Your task to perform on an android device: delete location history Image 0: 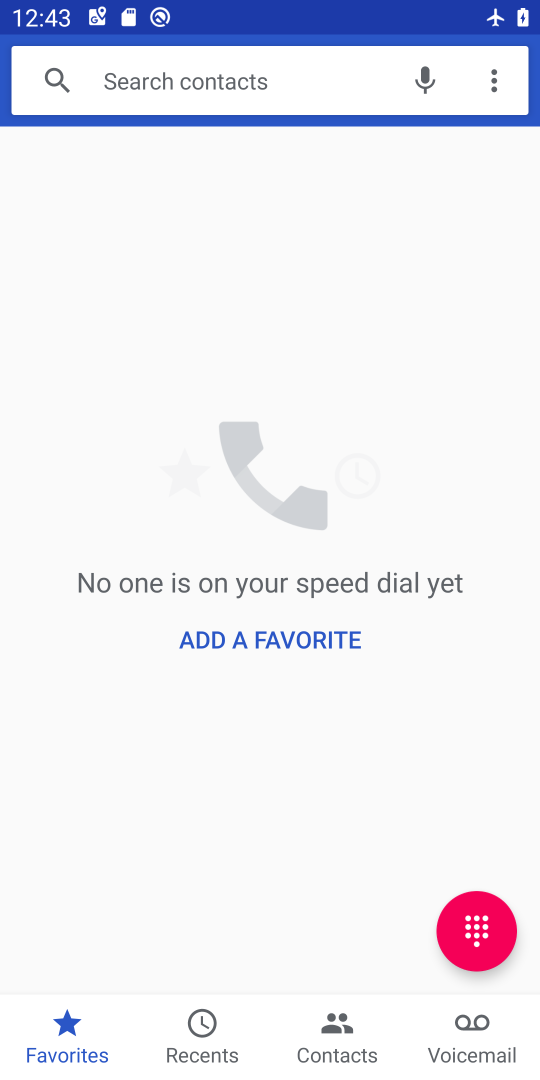
Step 0: press home button
Your task to perform on an android device: delete location history Image 1: 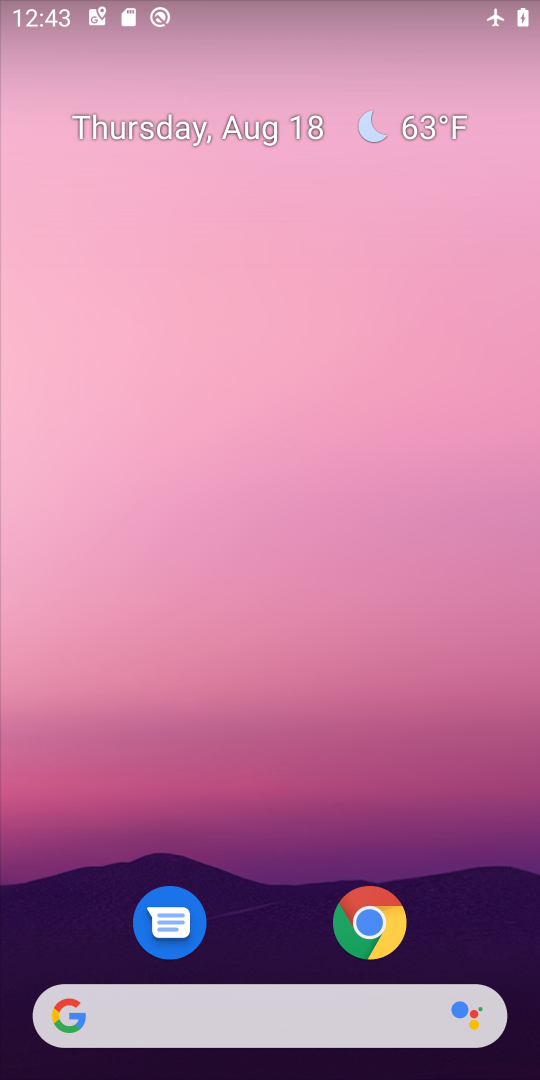
Step 1: drag from (258, 889) to (227, 309)
Your task to perform on an android device: delete location history Image 2: 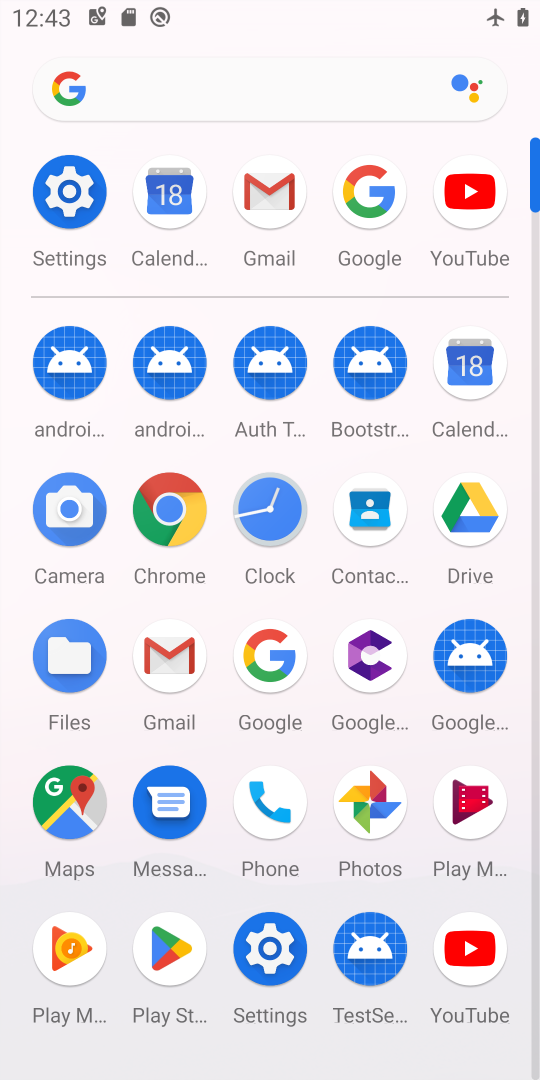
Step 2: click (70, 799)
Your task to perform on an android device: delete location history Image 3: 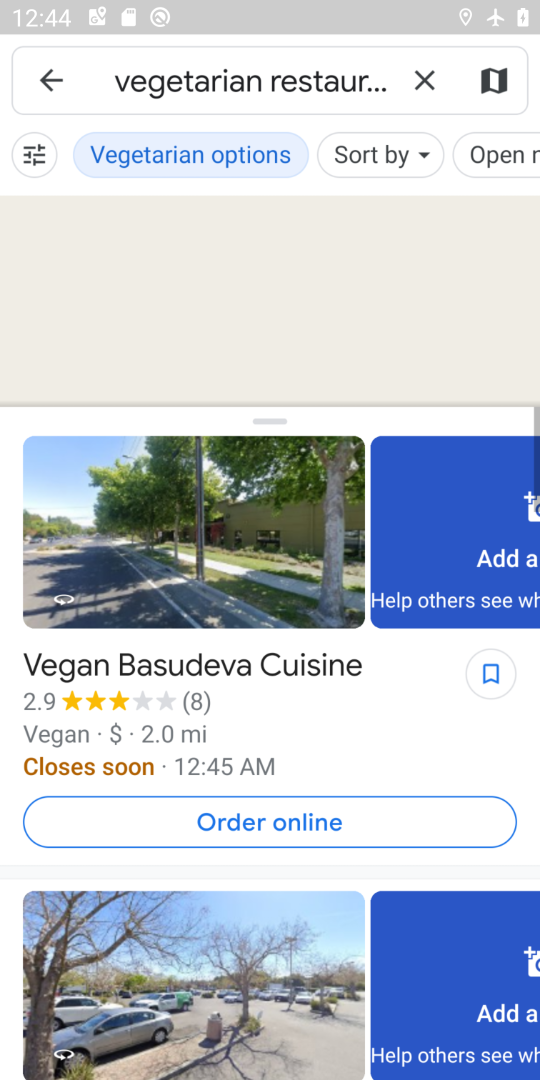
Step 3: click (47, 70)
Your task to perform on an android device: delete location history Image 4: 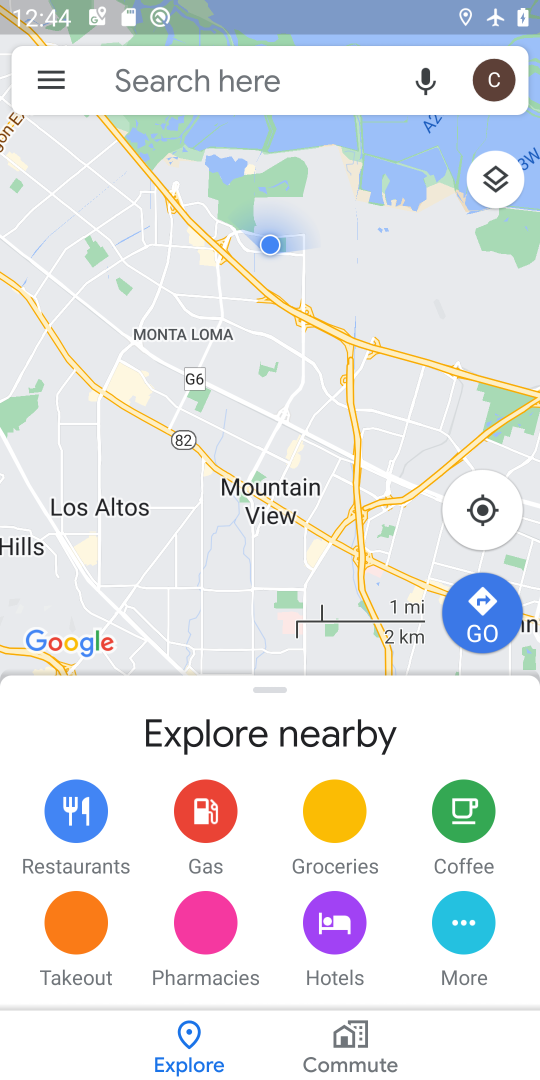
Step 4: click (51, 82)
Your task to perform on an android device: delete location history Image 5: 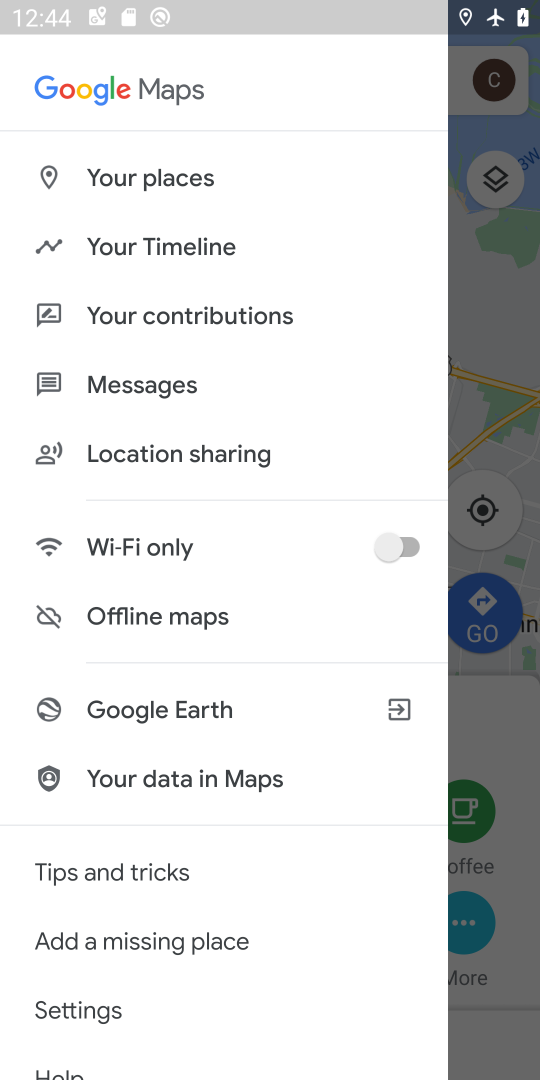
Step 5: click (160, 242)
Your task to perform on an android device: delete location history Image 6: 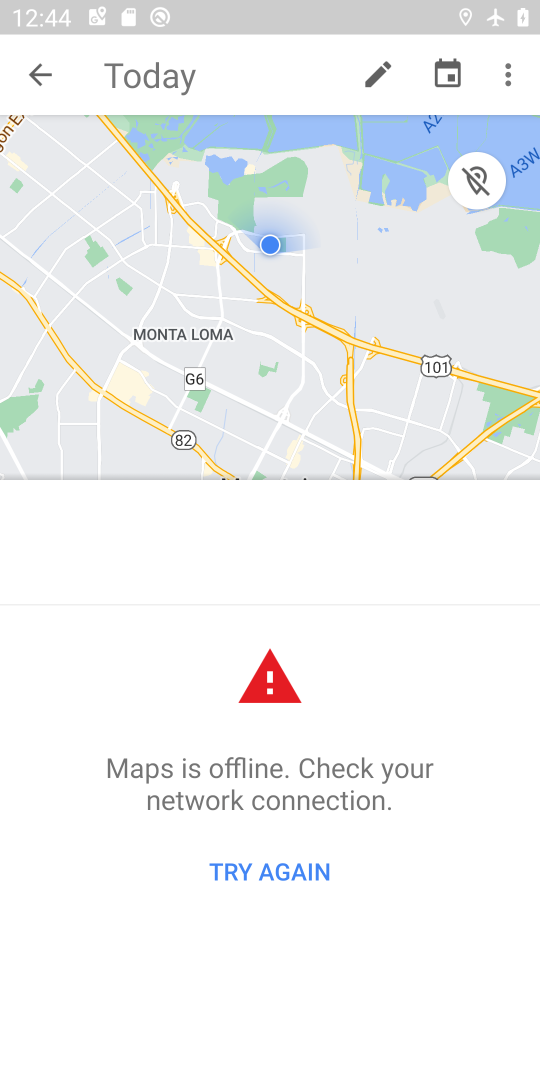
Step 6: click (511, 72)
Your task to perform on an android device: delete location history Image 7: 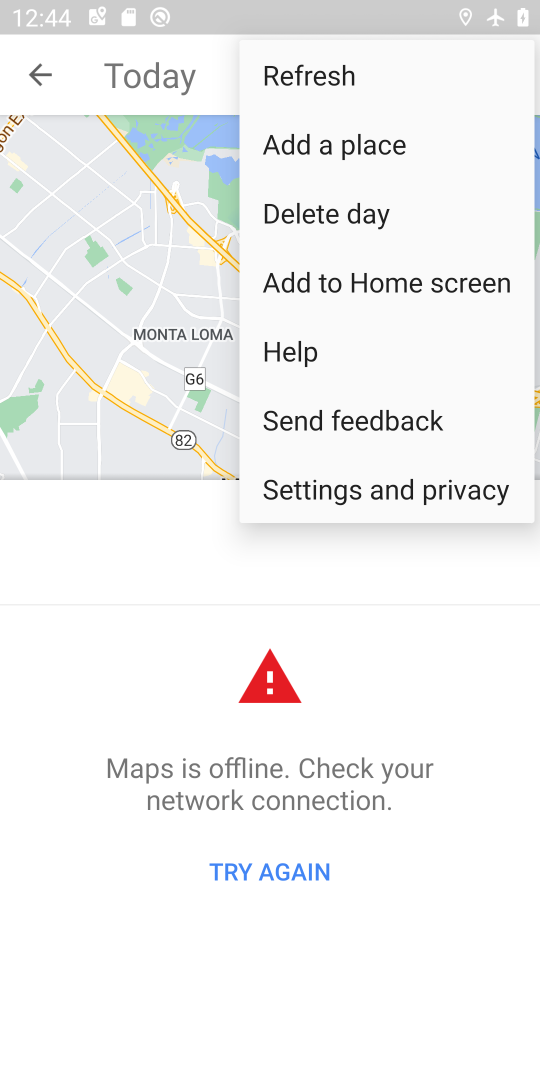
Step 7: click (376, 482)
Your task to perform on an android device: delete location history Image 8: 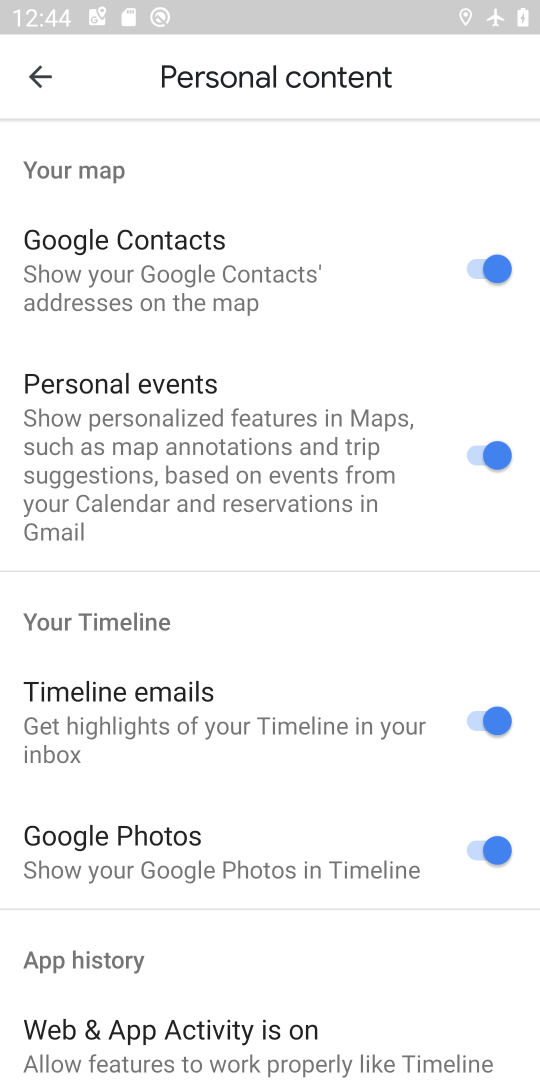
Step 8: drag from (283, 940) to (242, 658)
Your task to perform on an android device: delete location history Image 9: 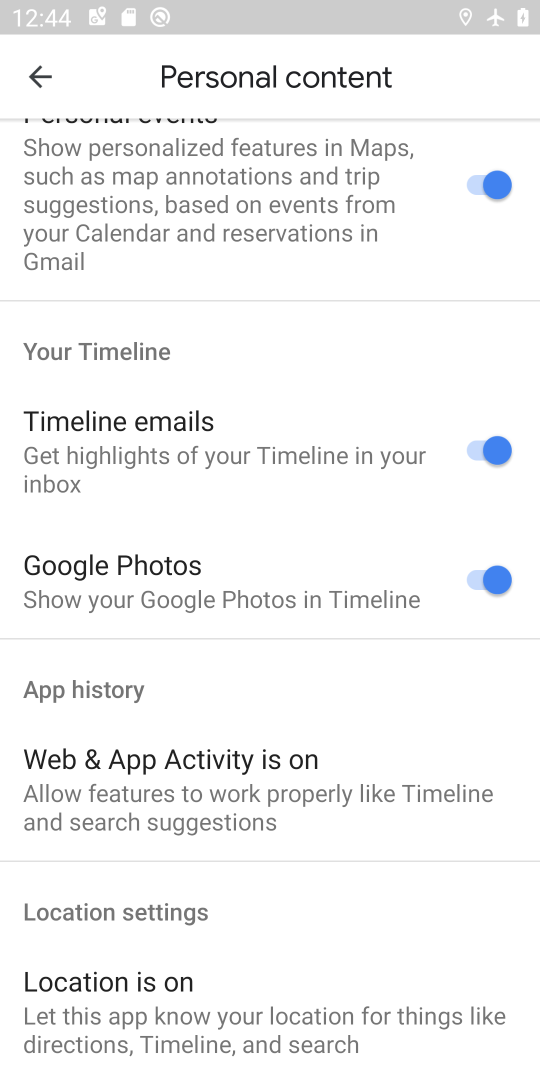
Step 9: drag from (274, 886) to (212, 567)
Your task to perform on an android device: delete location history Image 10: 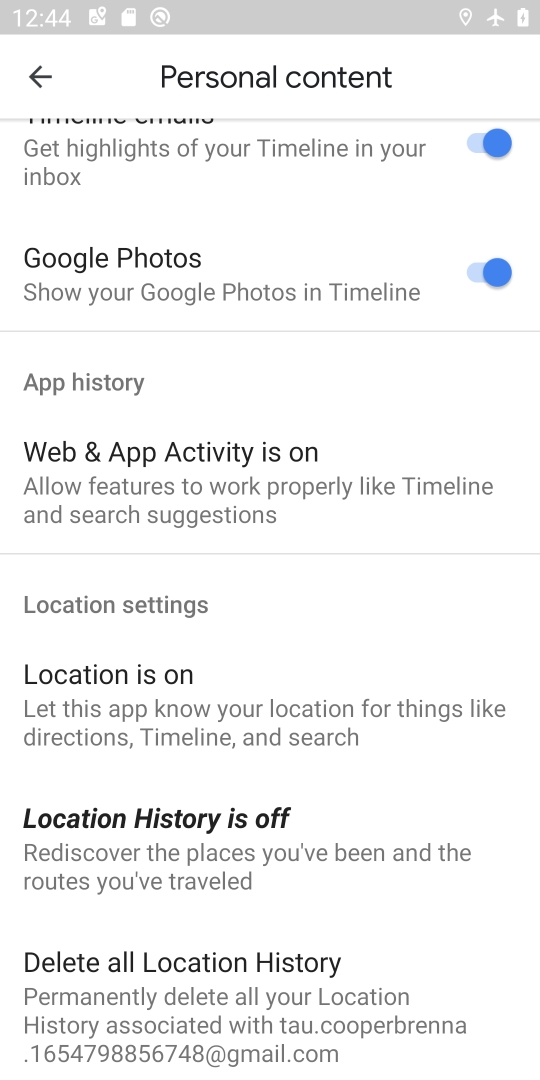
Step 10: click (216, 953)
Your task to perform on an android device: delete location history Image 11: 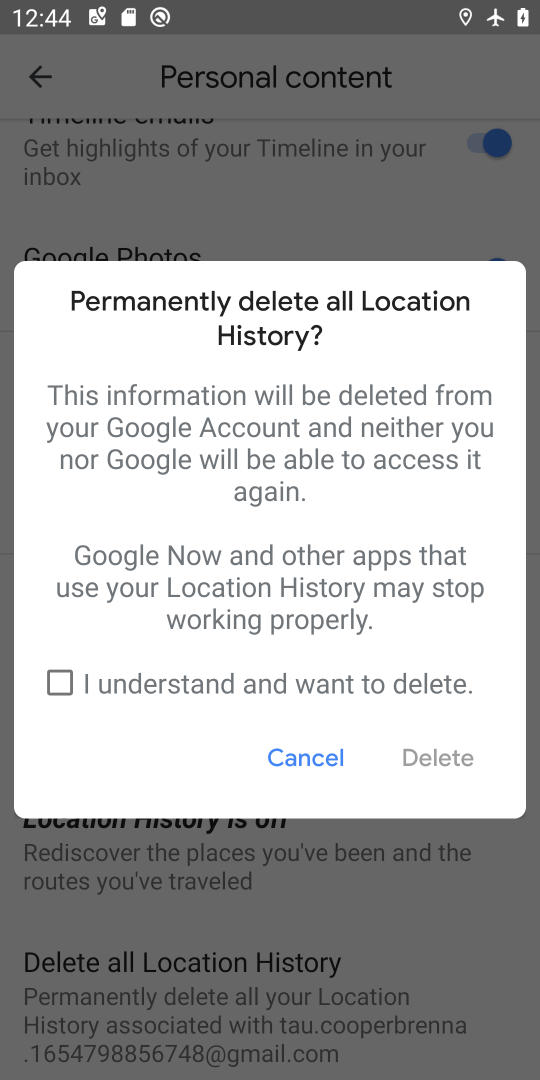
Step 11: click (57, 681)
Your task to perform on an android device: delete location history Image 12: 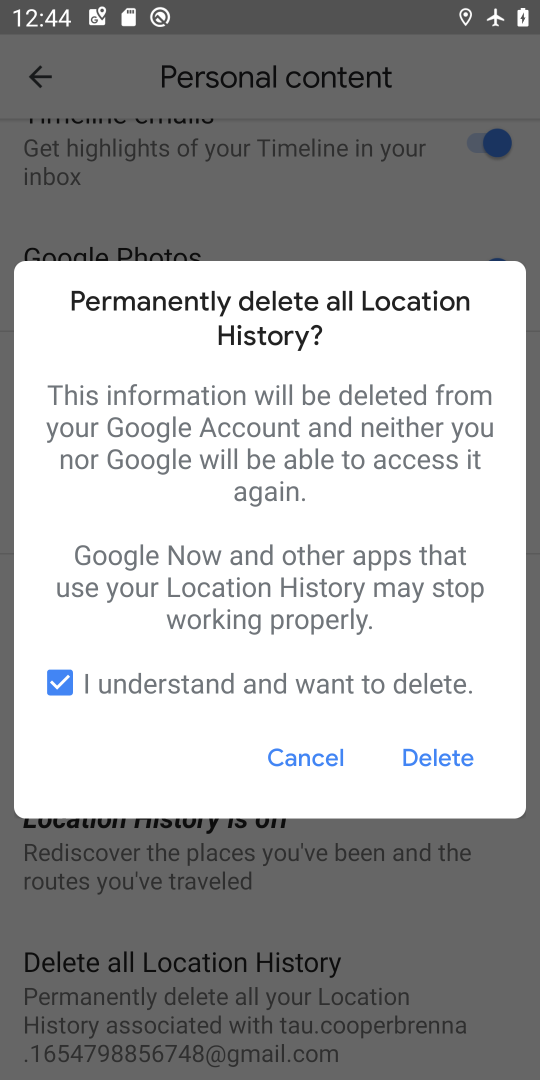
Step 12: click (438, 757)
Your task to perform on an android device: delete location history Image 13: 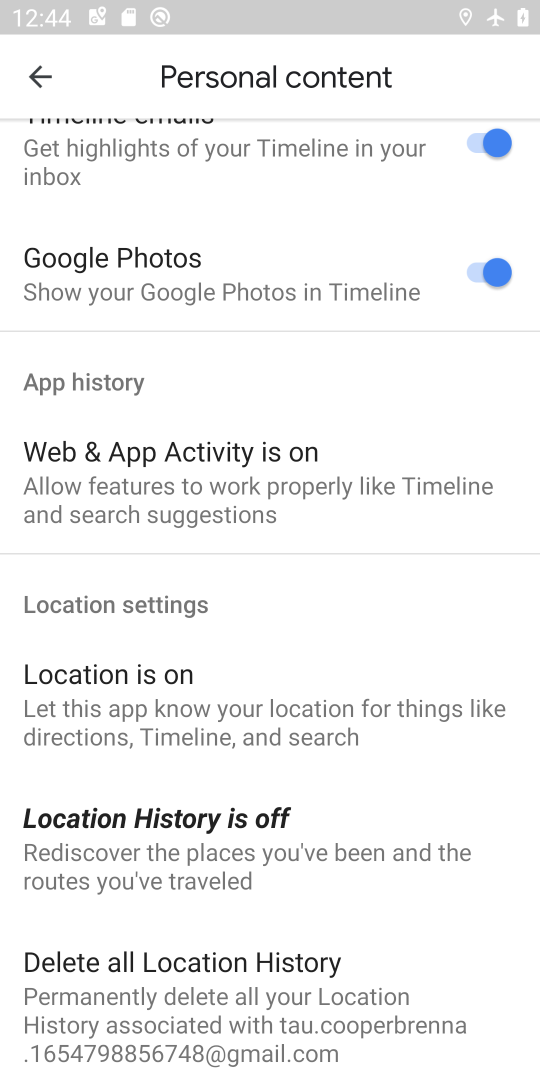
Step 13: task complete